Your task to perform on an android device: open sync settings in chrome Image 0: 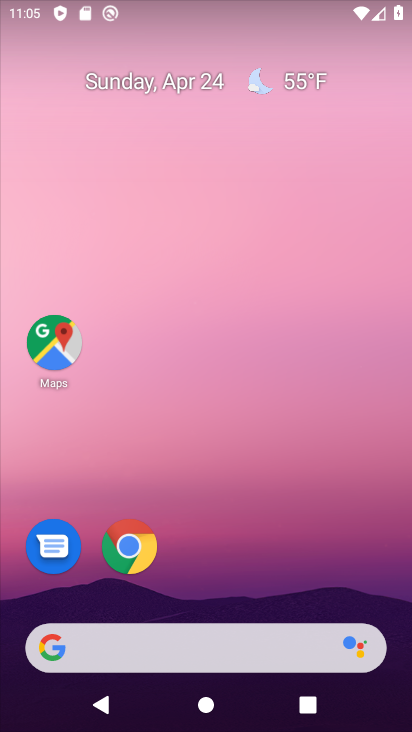
Step 0: click (128, 546)
Your task to perform on an android device: open sync settings in chrome Image 1: 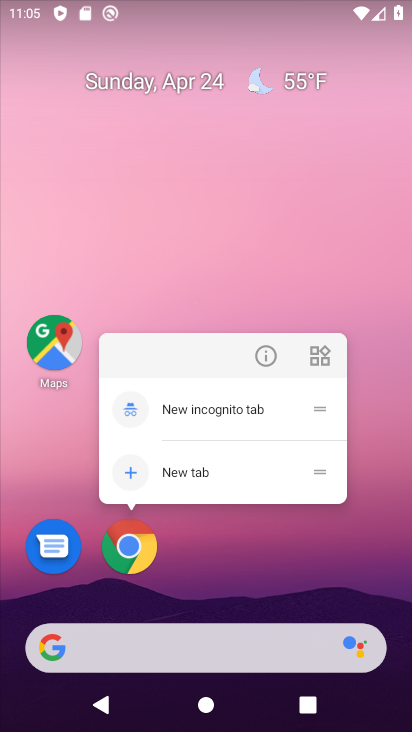
Step 1: click (130, 547)
Your task to perform on an android device: open sync settings in chrome Image 2: 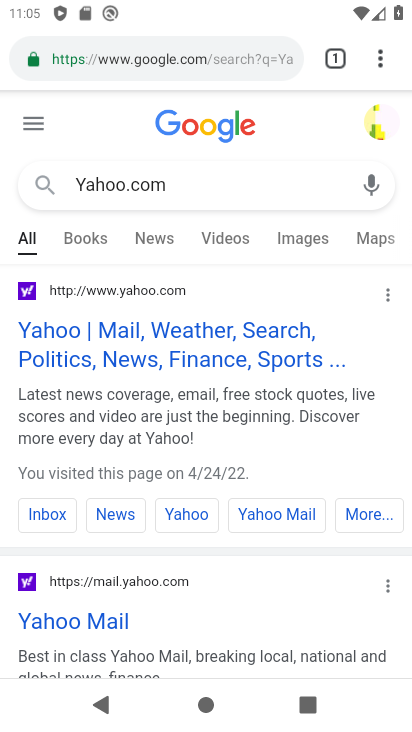
Step 2: click (379, 56)
Your task to perform on an android device: open sync settings in chrome Image 3: 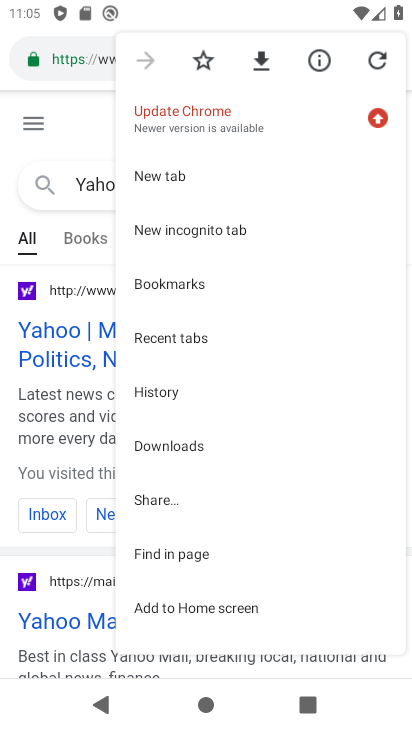
Step 3: drag from (203, 471) to (226, 374)
Your task to perform on an android device: open sync settings in chrome Image 4: 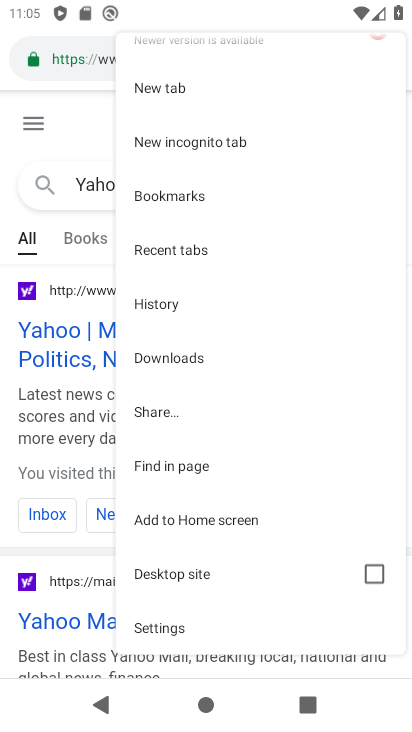
Step 4: drag from (187, 537) to (210, 432)
Your task to perform on an android device: open sync settings in chrome Image 5: 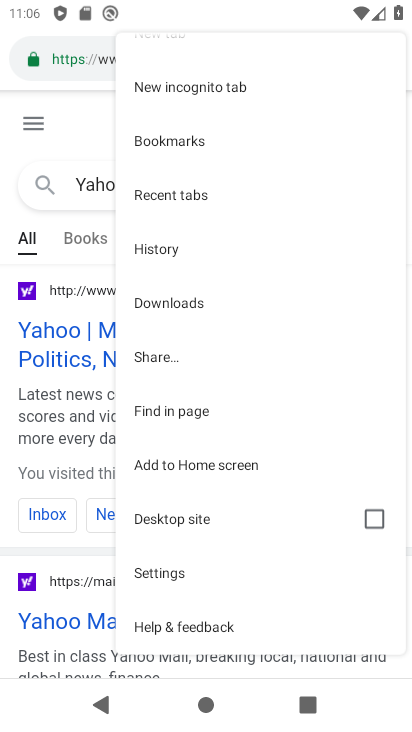
Step 5: click (169, 570)
Your task to perform on an android device: open sync settings in chrome Image 6: 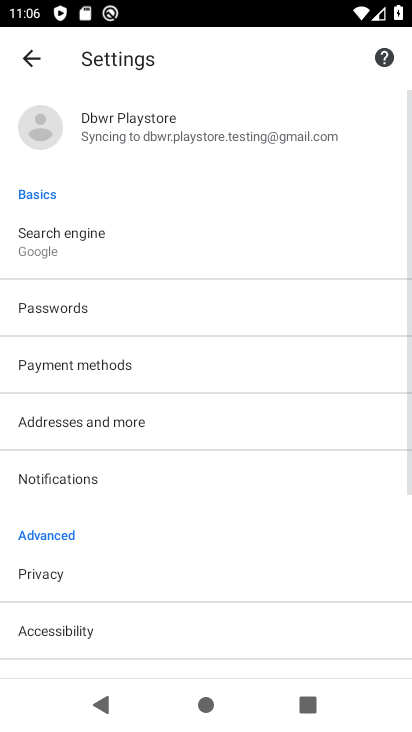
Step 6: drag from (149, 539) to (186, 417)
Your task to perform on an android device: open sync settings in chrome Image 7: 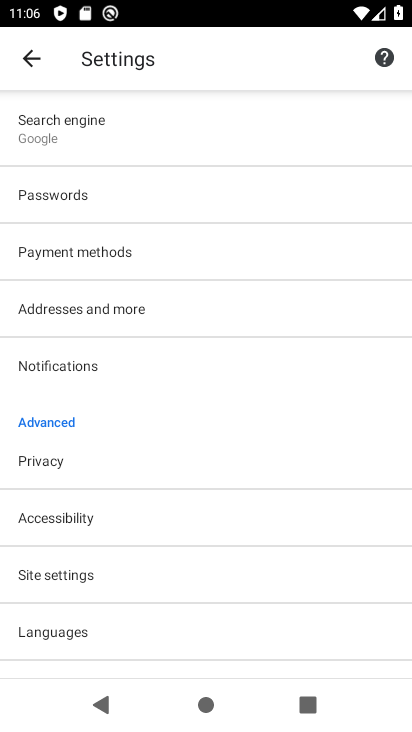
Step 7: drag from (145, 555) to (171, 463)
Your task to perform on an android device: open sync settings in chrome Image 8: 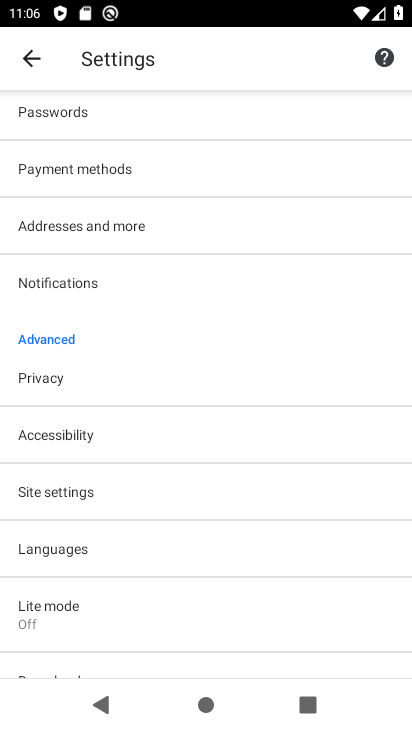
Step 8: click (82, 497)
Your task to perform on an android device: open sync settings in chrome Image 9: 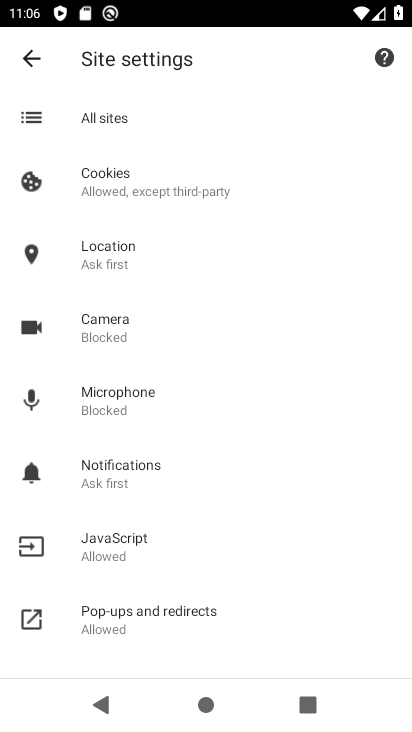
Step 9: drag from (123, 565) to (135, 470)
Your task to perform on an android device: open sync settings in chrome Image 10: 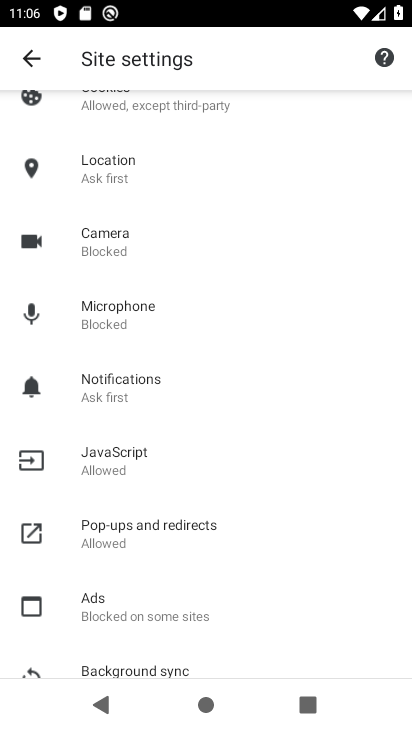
Step 10: drag from (136, 574) to (176, 442)
Your task to perform on an android device: open sync settings in chrome Image 11: 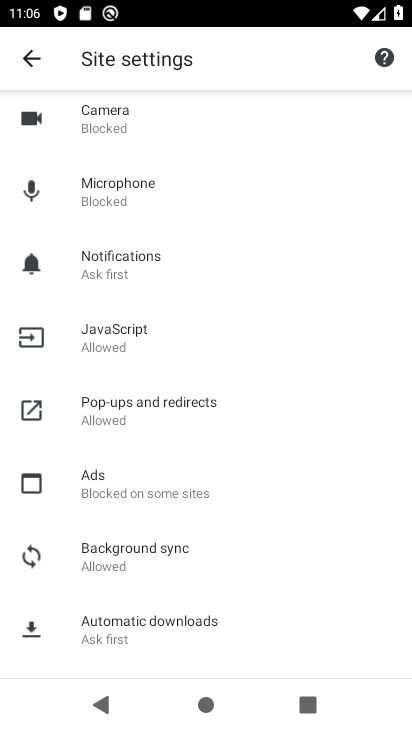
Step 11: click (125, 548)
Your task to perform on an android device: open sync settings in chrome Image 12: 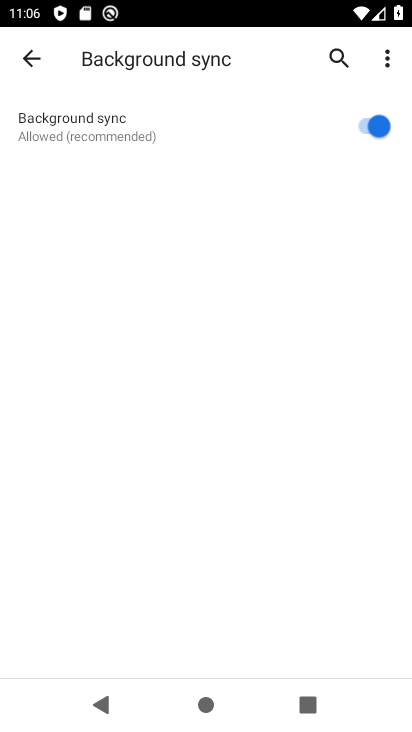
Step 12: task complete